Your task to perform on an android device: turn on bluetooth scan Image 0: 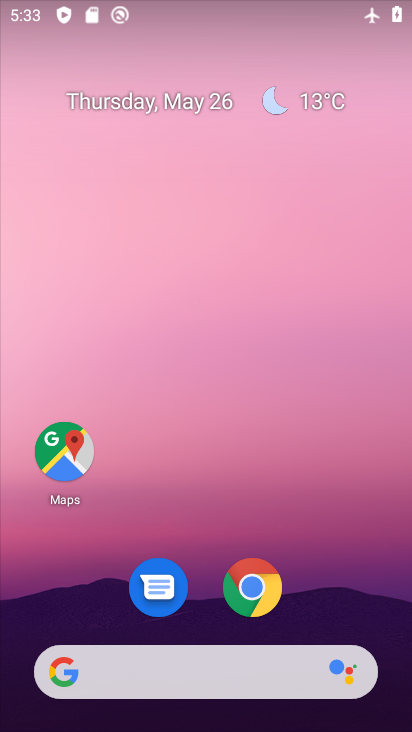
Step 0: drag from (213, 714) to (213, 28)
Your task to perform on an android device: turn on bluetooth scan Image 1: 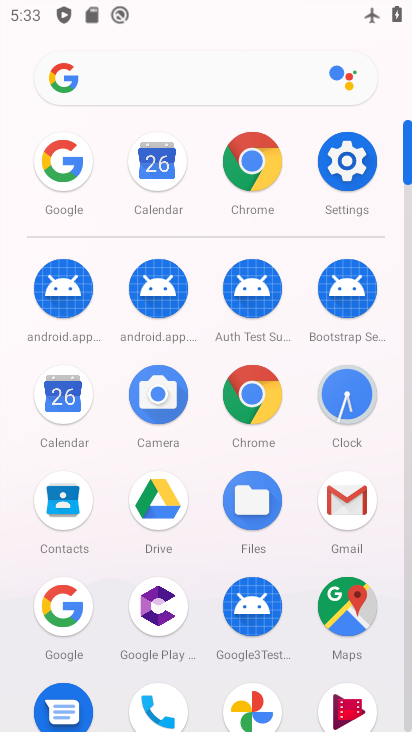
Step 1: click (347, 164)
Your task to perform on an android device: turn on bluetooth scan Image 2: 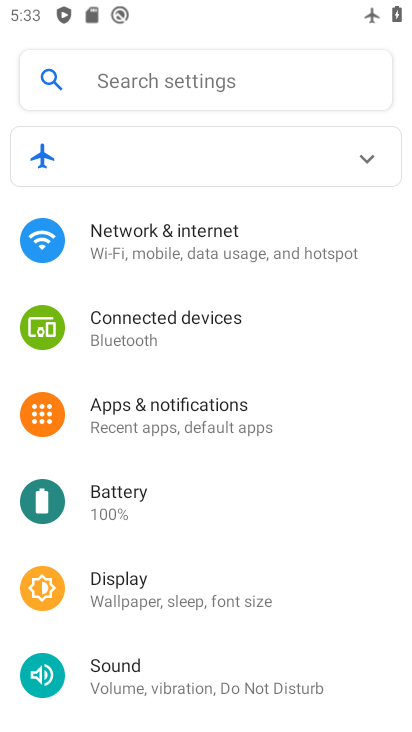
Step 2: drag from (167, 694) to (168, 339)
Your task to perform on an android device: turn on bluetooth scan Image 3: 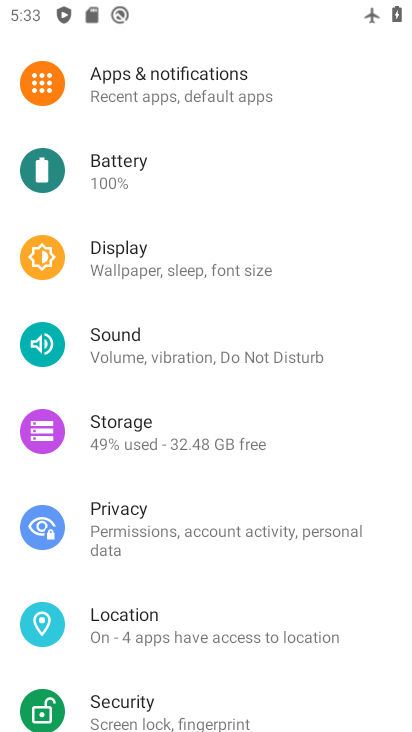
Step 3: drag from (208, 168) to (233, 117)
Your task to perform on an android device: turn on bluetooth scan Image 4: 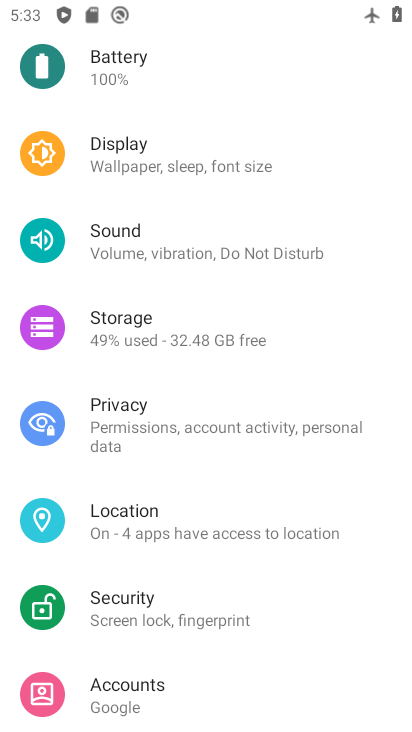
Step 4: click (119, 519)
Your task to perform on an android device: turn on bluetooth scan Image 5: 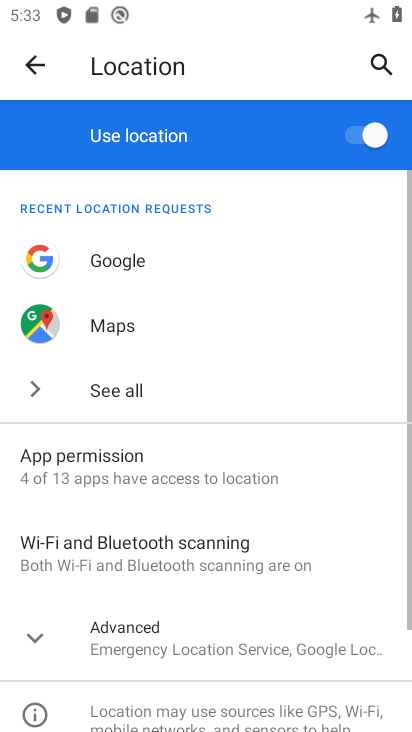
Step 5: drag from (155, 683) to (186, 438)
Your task to perform on an android device: turn on bluetooth scan Image 6: 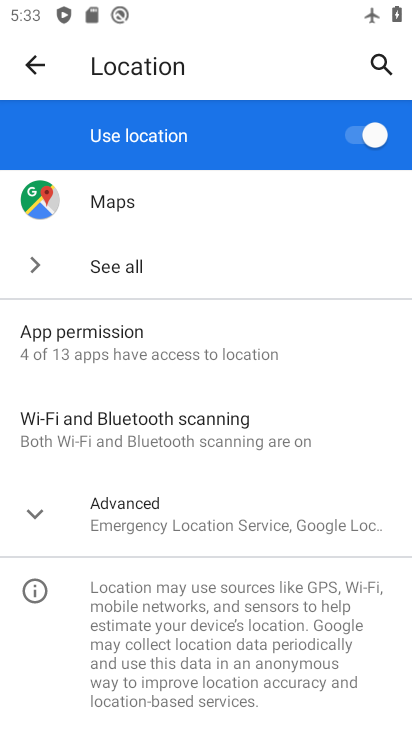
Step 6: click (161, 421)
Your task to perform on an android device: turn on bluetooth scan Image 7: 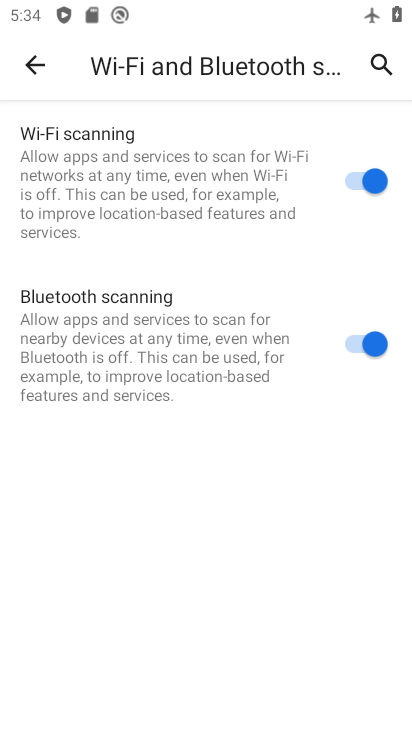
Step 7: task complete